Your task to perform on an android device: Go to network settings Image 0: 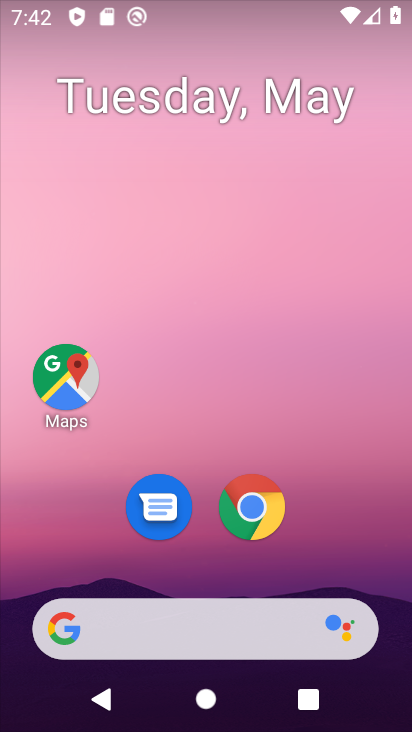
Step 0: drag from (317, 540) to (256, 39)
Your task to perform on an android device: Go to network settings Image 1: 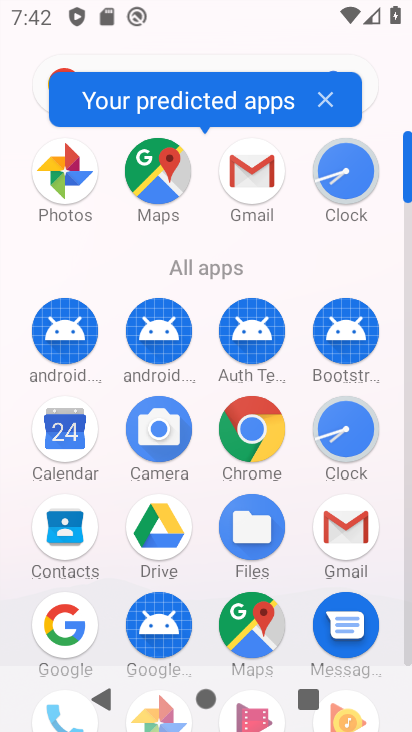
Step 1: drag from (11, 526) to (18, 267)
Your task to perform on an android device: Go to network settings Image 2: 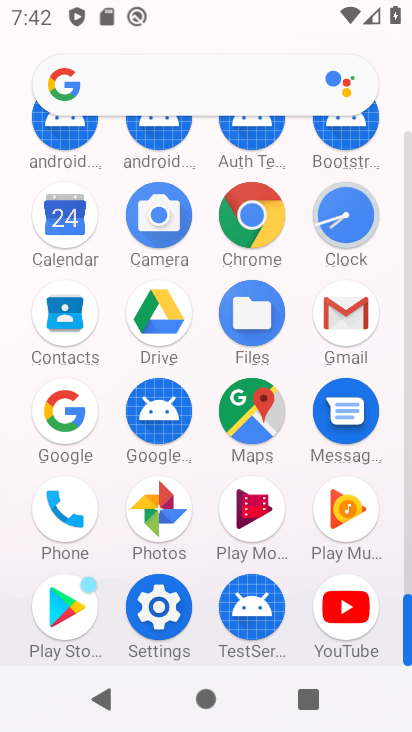
Step 2: click (160, 603)
Your task to perform on an android device: Go to network settings Image 3: 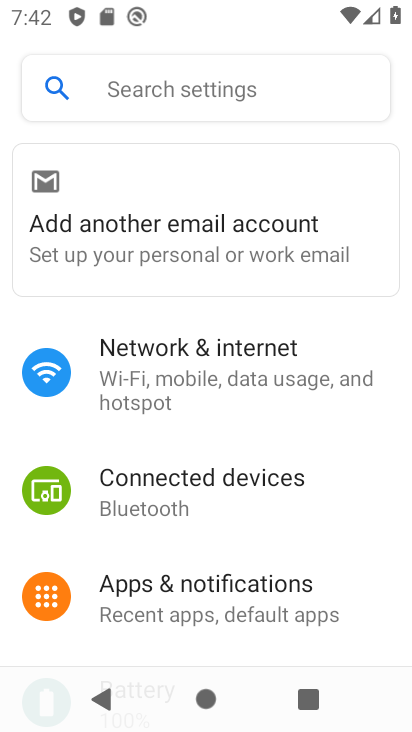
Step 3: click (197, 384)
Your task to perform on an android device: Go to network settings Image 4: 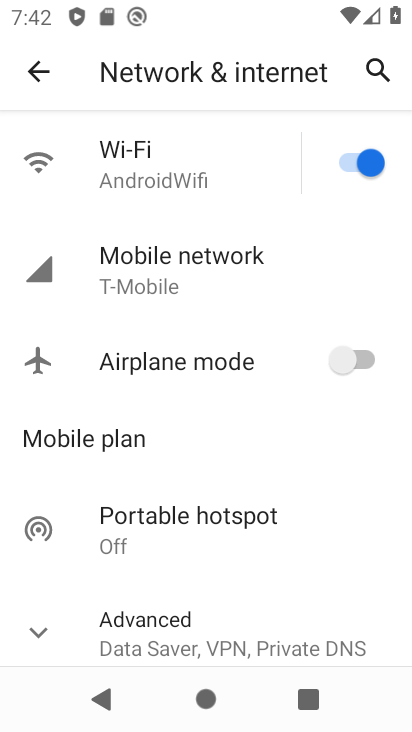
Step 4: click (34, 628)
Your task to perform on an android device: Go to network settings Image 5: 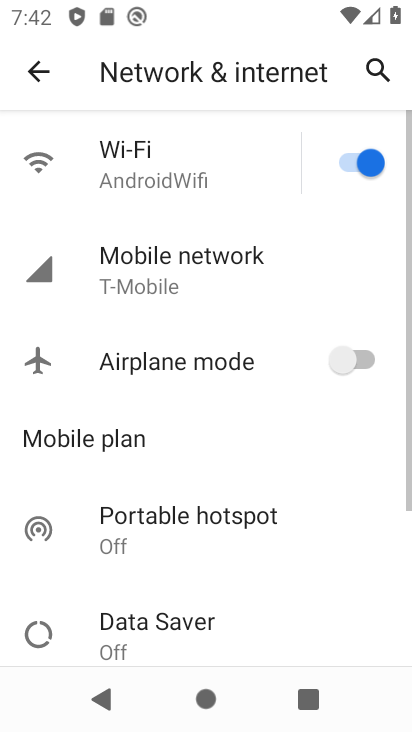
Step 5: task complete